Your task to perform on an android device: Search for rayovac triple a on walmart.com, select the first entry, and add it to the cart. Image 0: 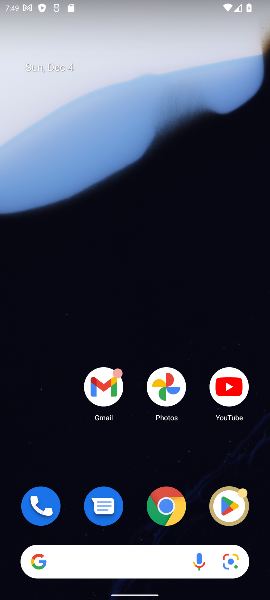
Step 0: click (174, 497)
Your task to perform on an android device: Search for rayovac triple a on walmart.com, select the first entry, and add it to the cart. Image 1: 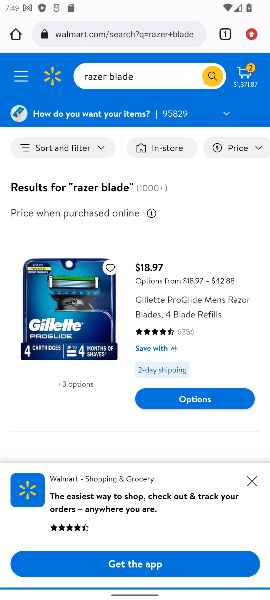
Step 1: click (147, 77)
Your task to perform on an android device: Search for rayovac triple a on walmart.com, select the first entry, and add it to the cart. Image 2: 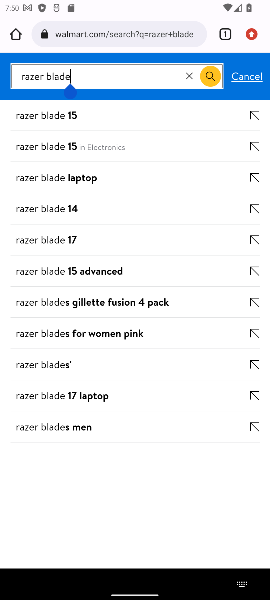
Step 2: click (186, 74)
Your task to perform on an android device: Search for rayovac triple a on walmart.com, select the first entry, and add it to the cart. Image 3: 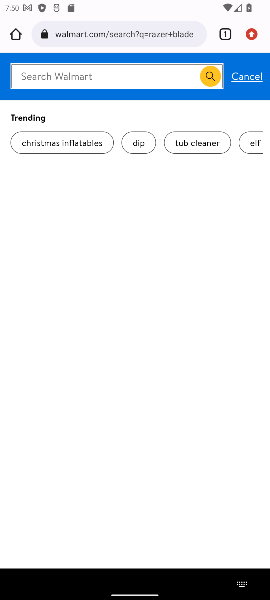
Step 3: type "rayovac triple a"
Your task to perform on an android device: Search for rayovac triple a on walmart.com, select the first entry, and add it to the cart. Image 4: 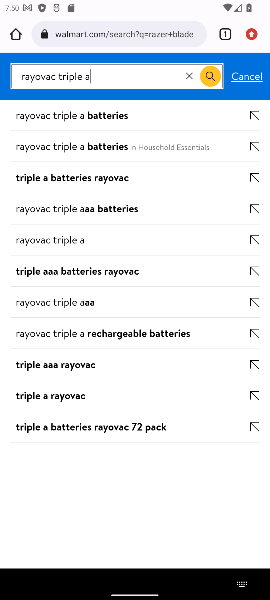
Step 4: click (218, 81)
Your task to perform on an android device: Search for rayovac triple a on walmart.com, select the first entry, and add it to the cart. Image 5: 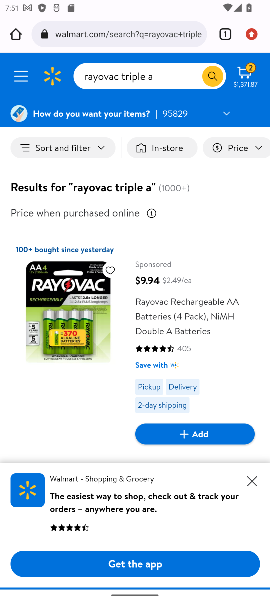
Step 5: click (197, 436)
Your task to perform on an android device: Search for rayovac triple a on walmart.com, select the first entry, and add it to the cart. Image 6: 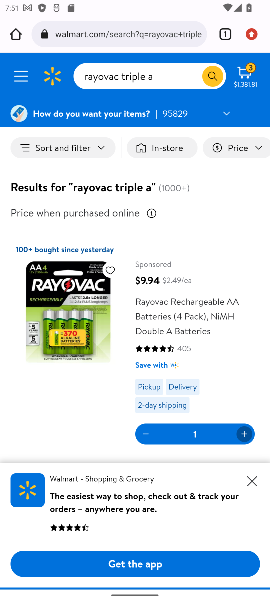
Step 6: task complete